Your task to perform on an android device: open app "HBO Max: Stream TV & Movies" Image 0: 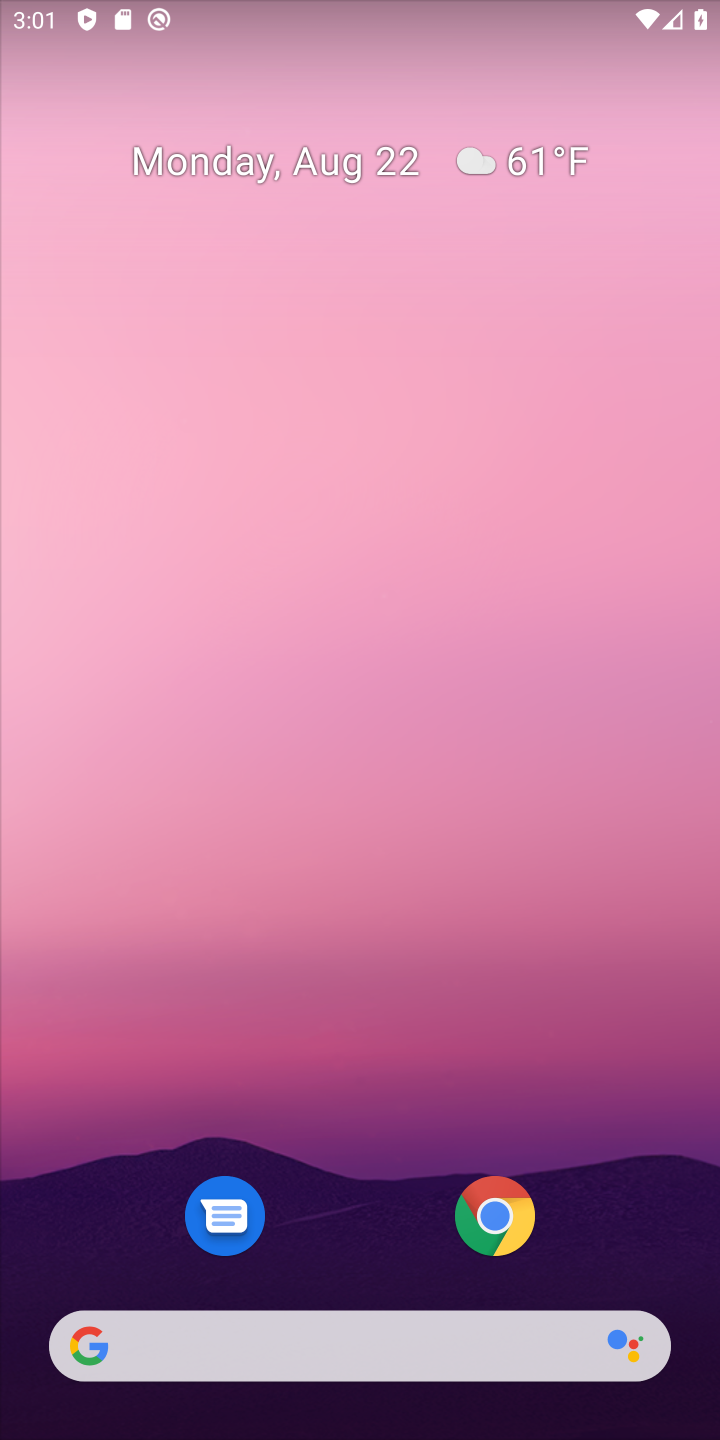
Step 0: click (609, 791)
Your task to perform on an android device: open app "HBO Max: Stream TV & Movies" Image 1: 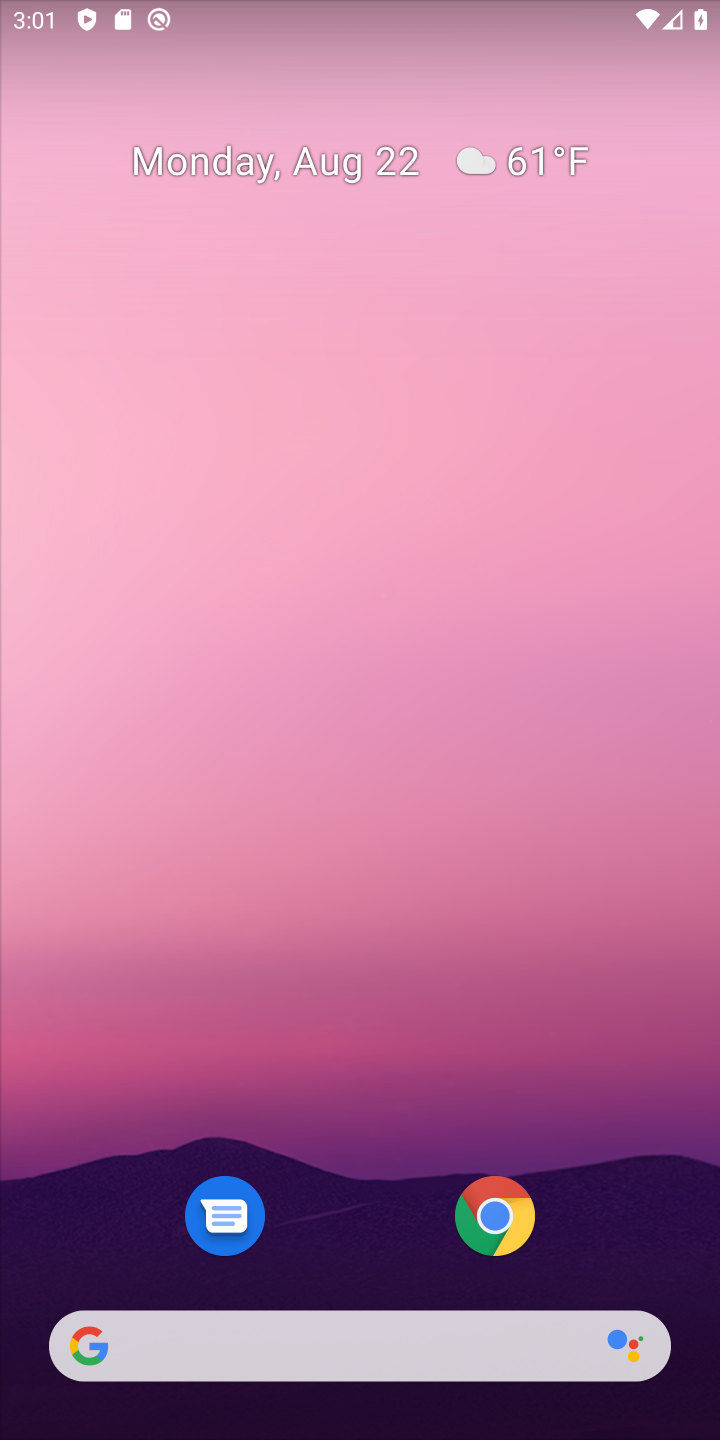
Step 1: drag from (343, 1151) to (6, 335)
Your task to perform on an android device: open app "HBO Max: Stream TV & Movies" Image 2: 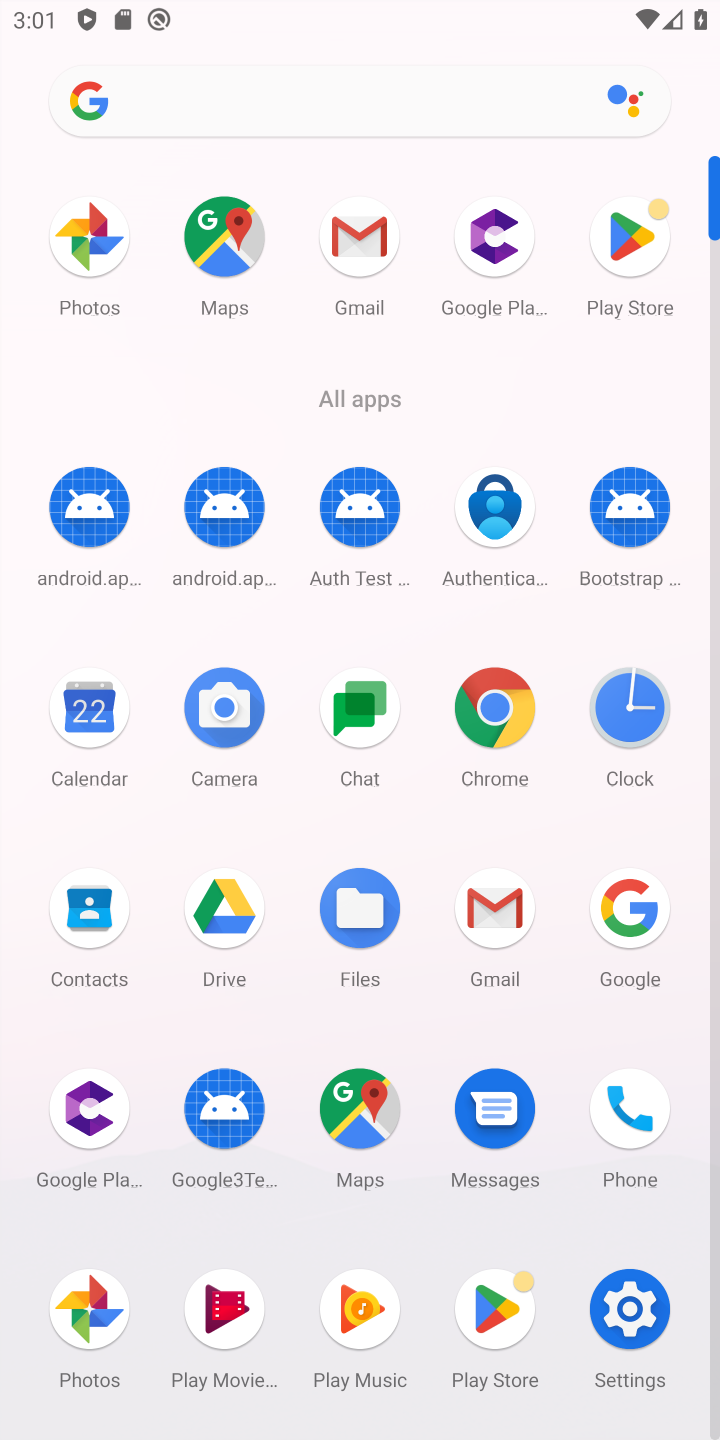
Step 2: click (623, 235)
Your task to perform on an android device: open app "HBO Max: Stream TV & Movies" Image 3: 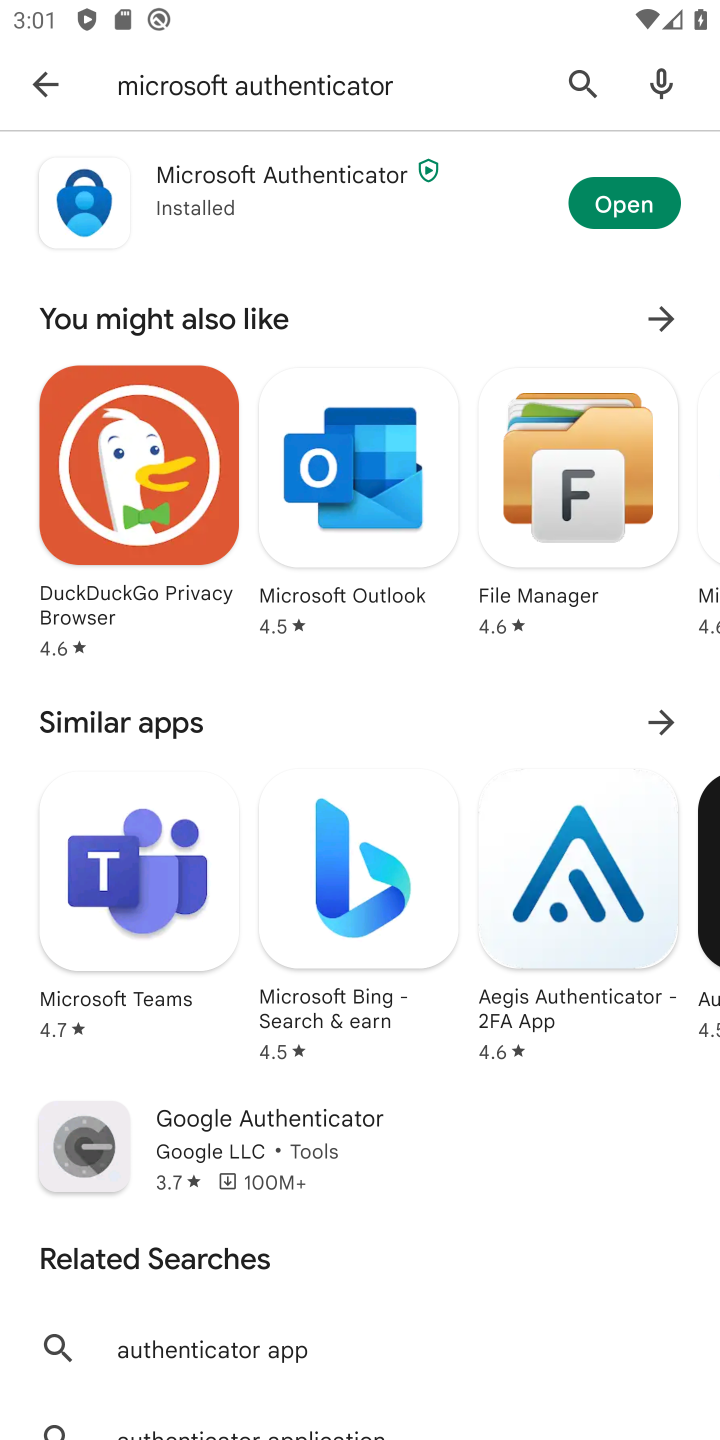
Step 3: click (219, 82)
Your task to perform on an android device: open app "HBO Max: Stream TV & Movies" Image 4: 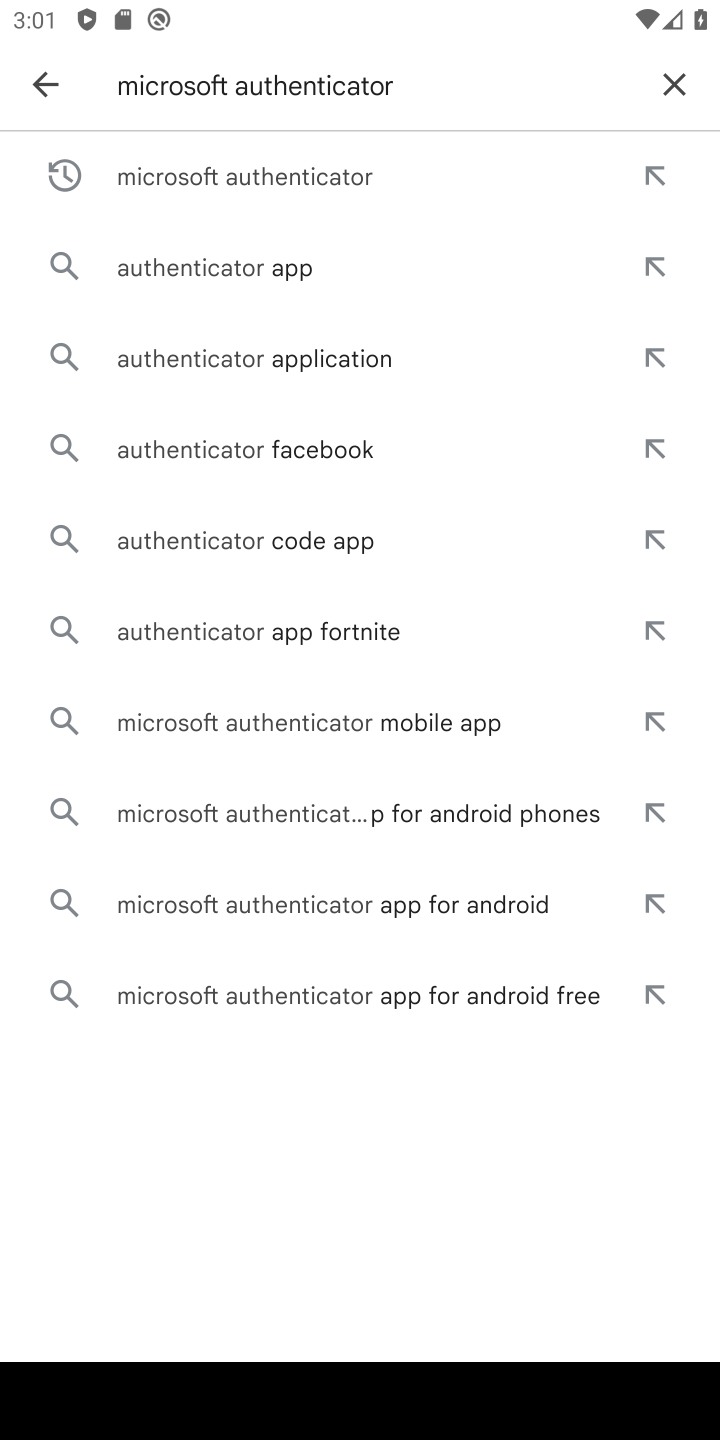
Step 4: click (683, 76)
Your task to perform on an android device: open app "HBO Max: Stream TV & Movies" Image 5: 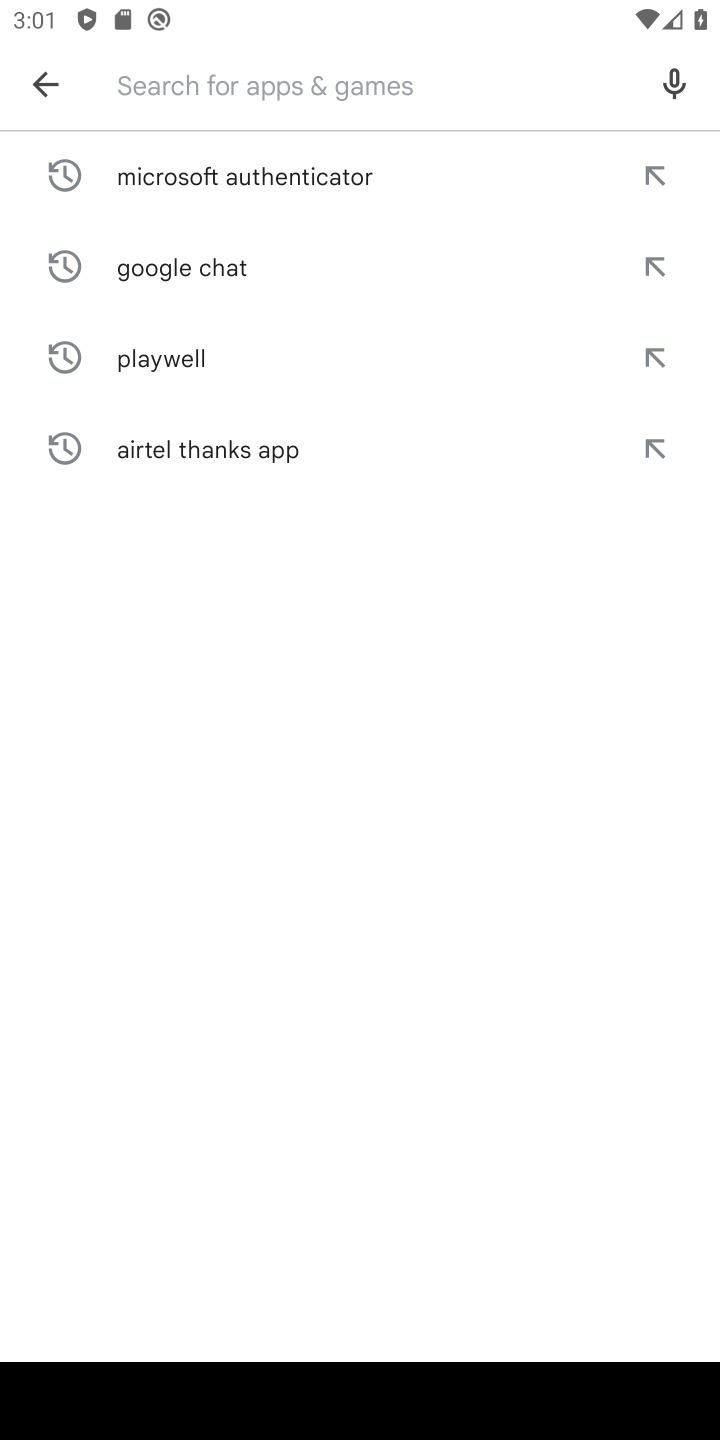
Step 5: type "HBO Max"
Your task to perform on an android device: open app "HBO Max: Stream TV & Movies" Image 6: 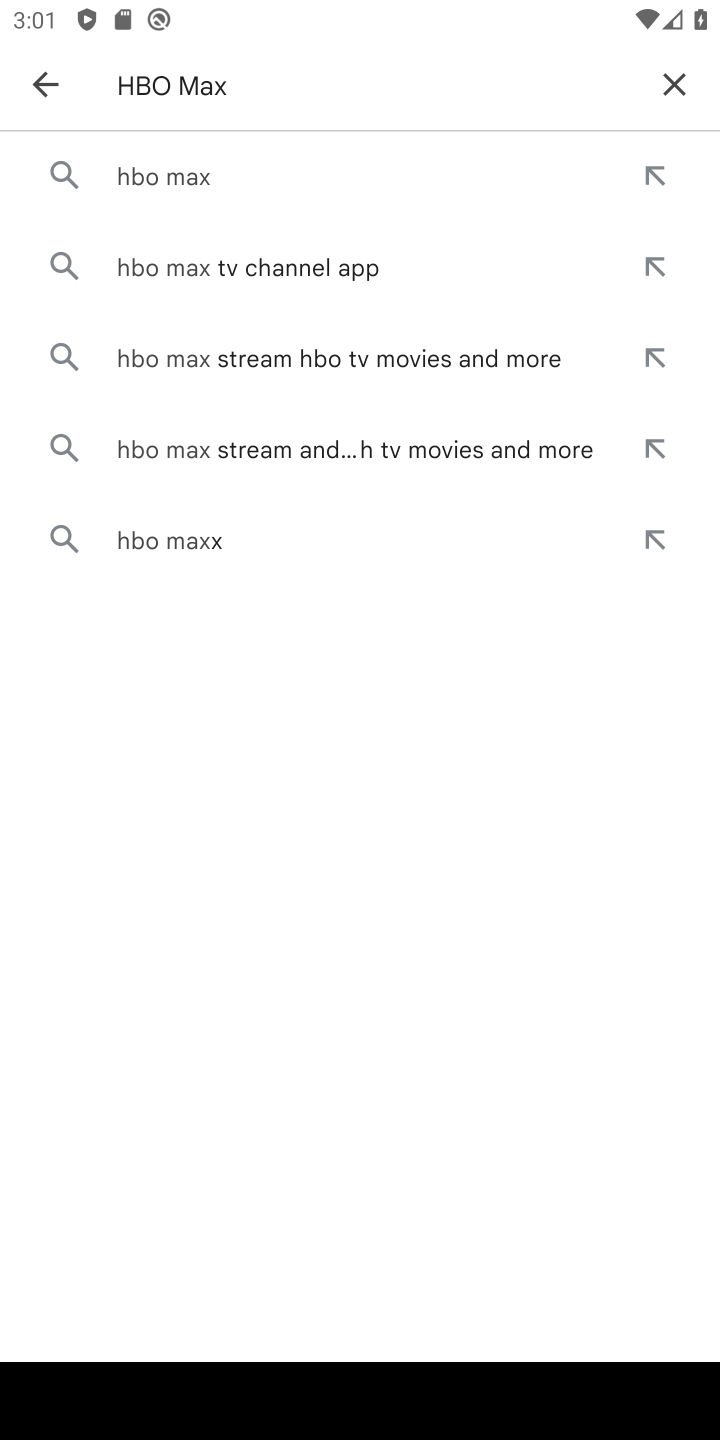
Step 6: click (217, 186)
Your task to perform on an android device: open app "HBO Max: Stream TV & Movies" Image 7: 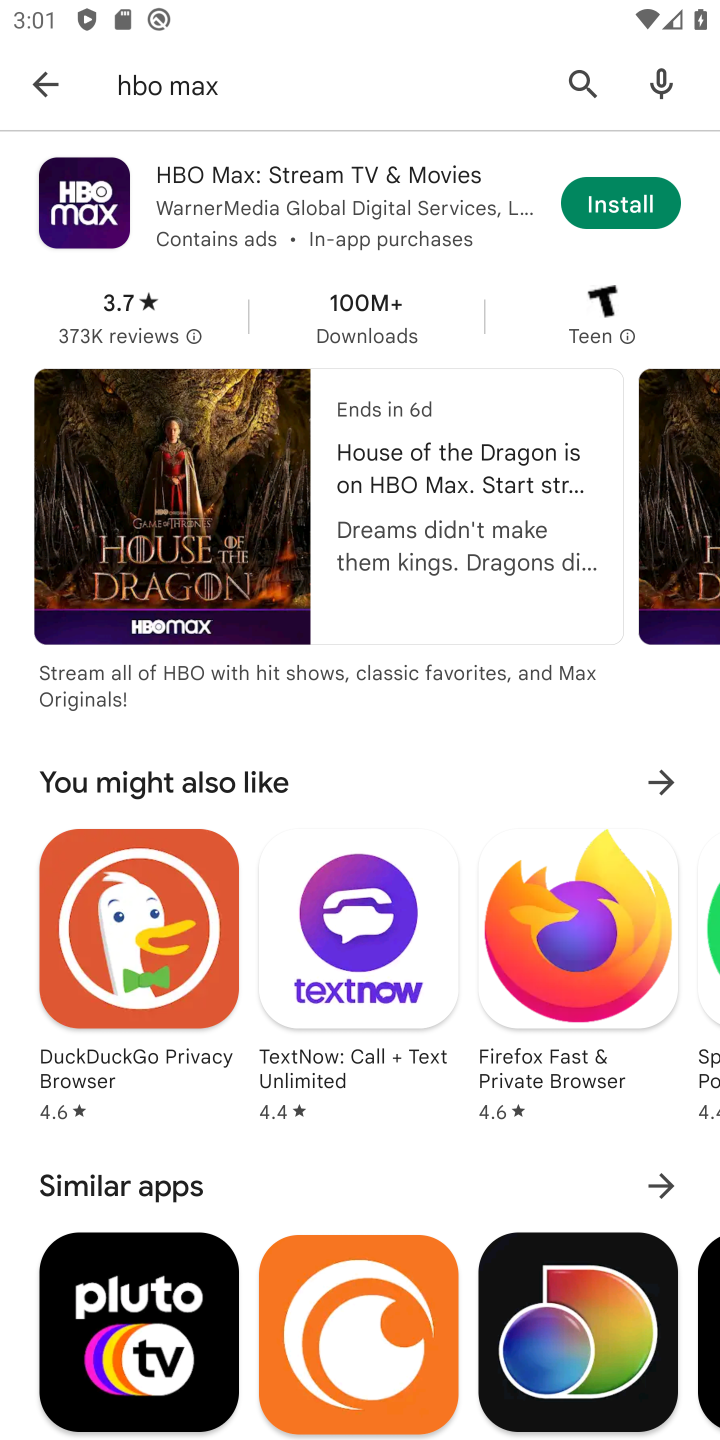
Step 7: task complete